Your task to perform on an android device: set the stopwatch Image 0: 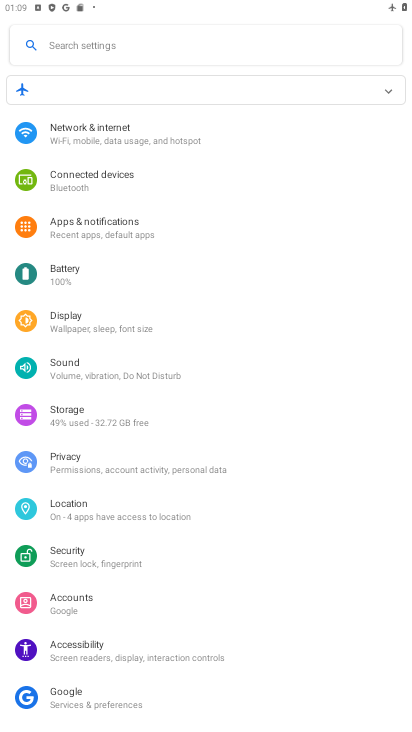
Step 0: press home button
Your task to perform on an android device: set the stopwatch Image 1: 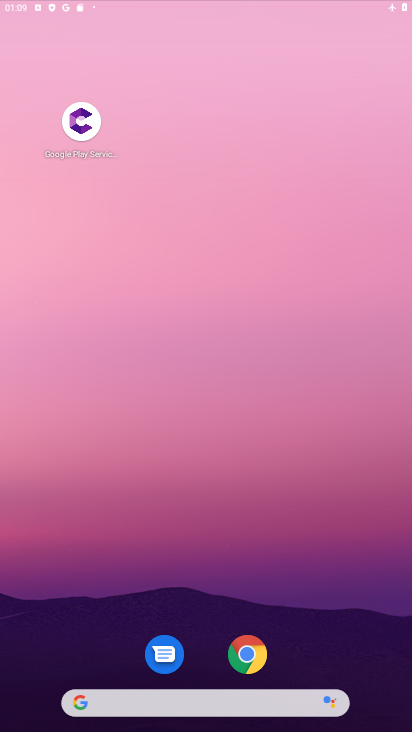
Step 1: drag from (274, 709) to (356, 15)
Your task to perform on an android device: set the stopwatch Image 2: 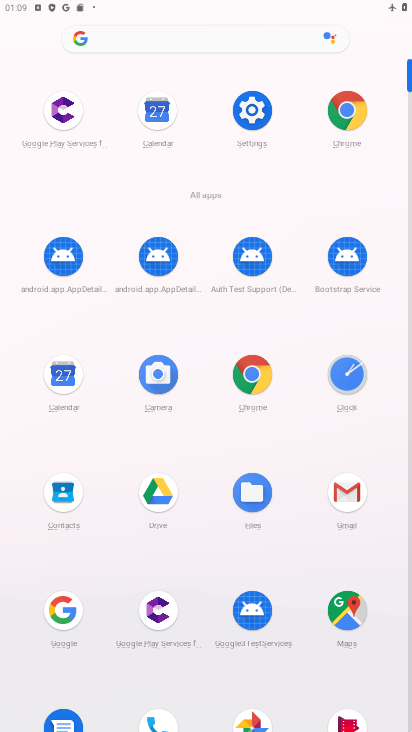
Step 2: click (348, 381)
Your task to perform on an android device: set the stopwatch Image 3: 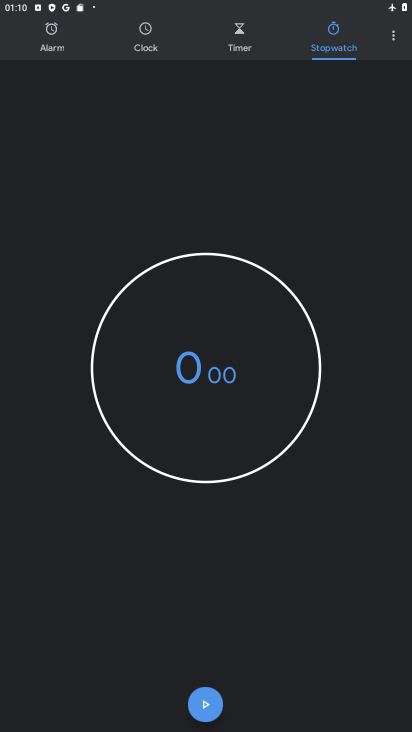
Step 3: click (197, 702)
Your task to perform on an android device: set the stopwatch Image 4: 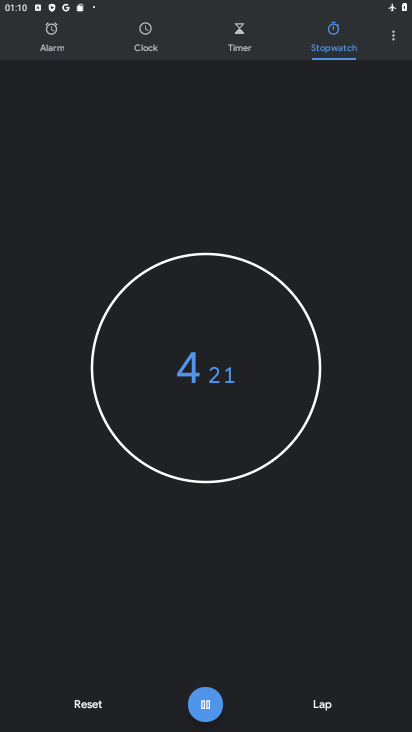
Step 4: task complete